Your task to perform on an android device: Open accessibility settings Image 0: 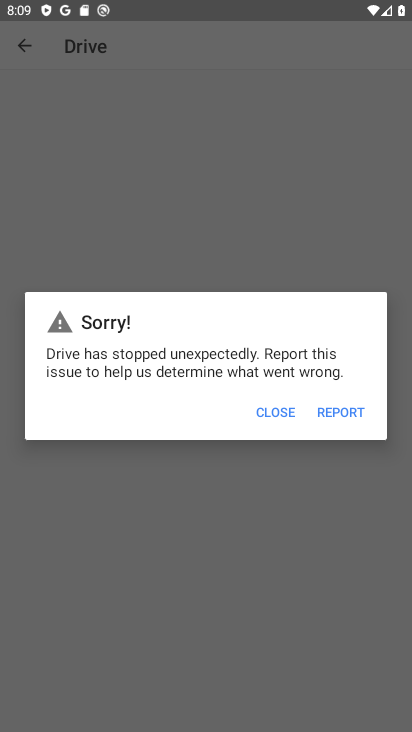
Step 0: press home button
Your task to perform on an android device: Open accessibility settings Image 1: 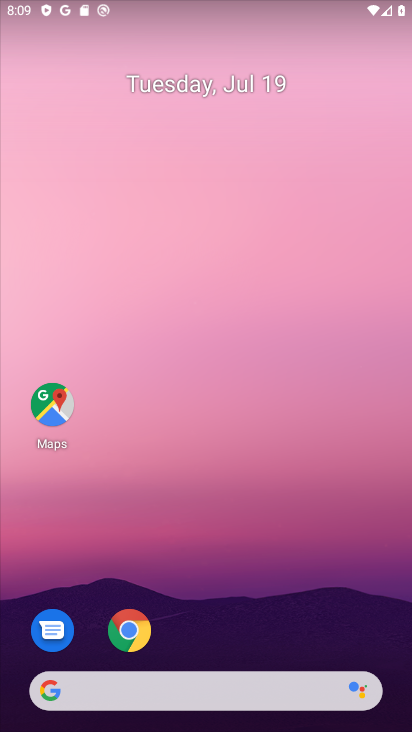
Step 1: drag from (318, 652) to (325, 268)
Your task to perform on an android device: Open accessibility settings Image 2: 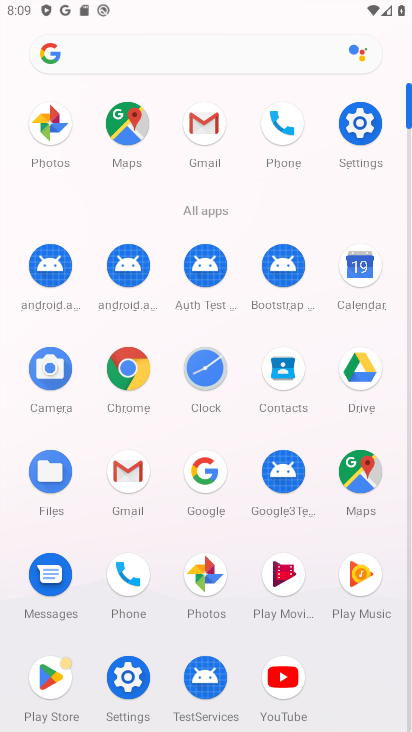
Step 2: click (371, 135)
Your task to perform on an android device: Open accessibility settings Image 3: 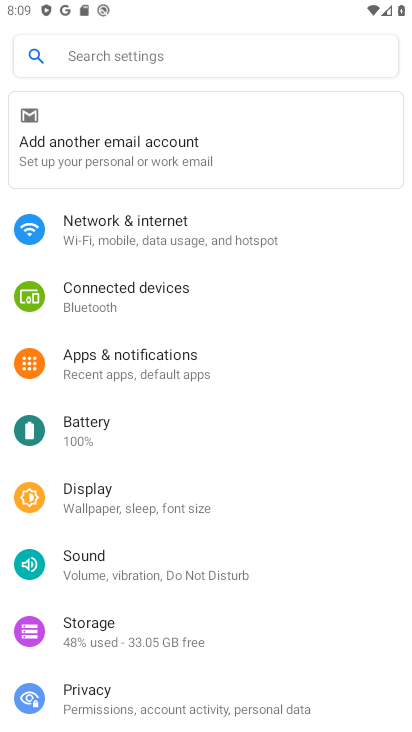
Step 3: drag from (165, 684) to (241, 257)
Your task to perform on an android device: Open accessibility settings Image 4: 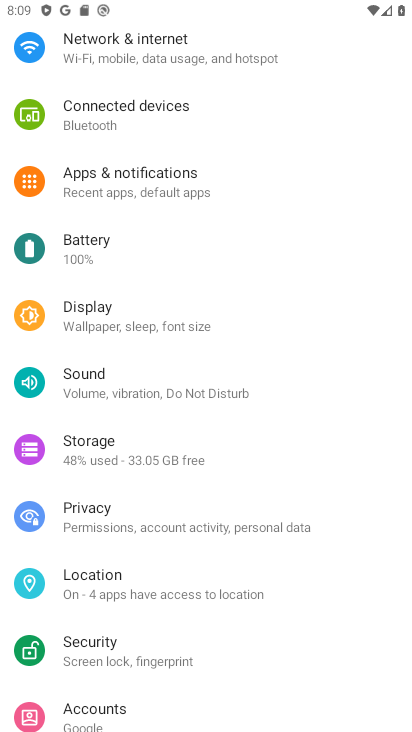
Step 4: drag from (213, 587) to (187, 5)
Your task to perform on an android device: Open accessibility settings Image 5: 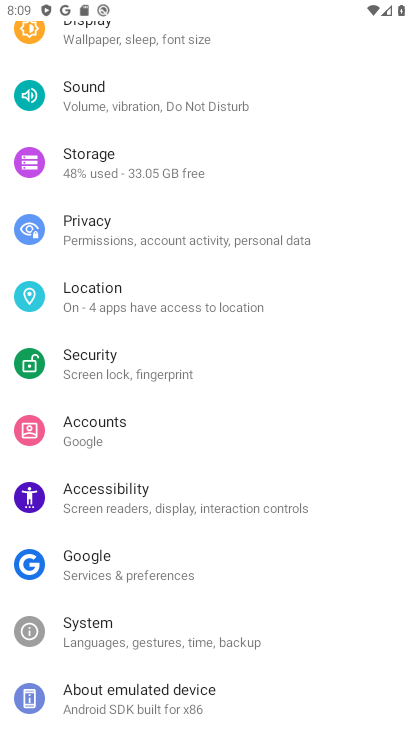
Step 5: click (164, 487)
Your task to perform on an android device: Open accessibility settings Image 6: 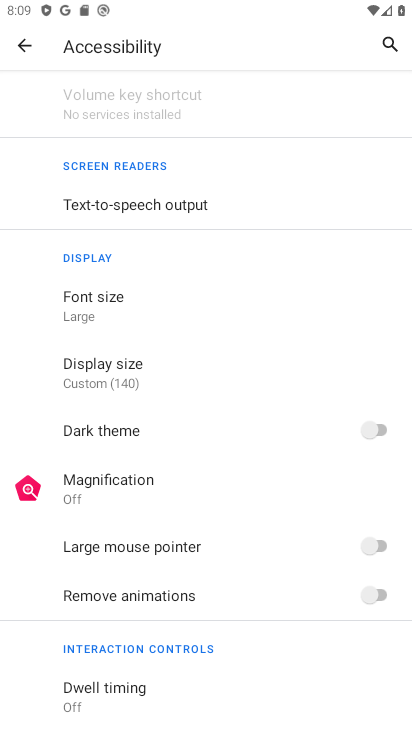
Step 6: task complete